Your task to perform on an android device: open wifi settings Image 0: 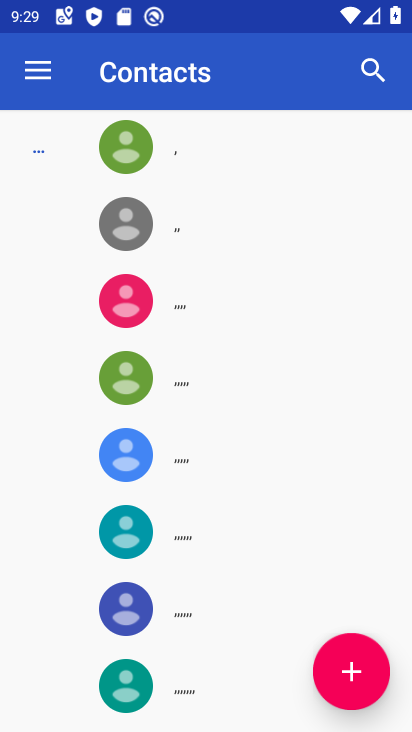
Step 0: press home button
Your task to perform on an android device: open wifi settings Image 1: 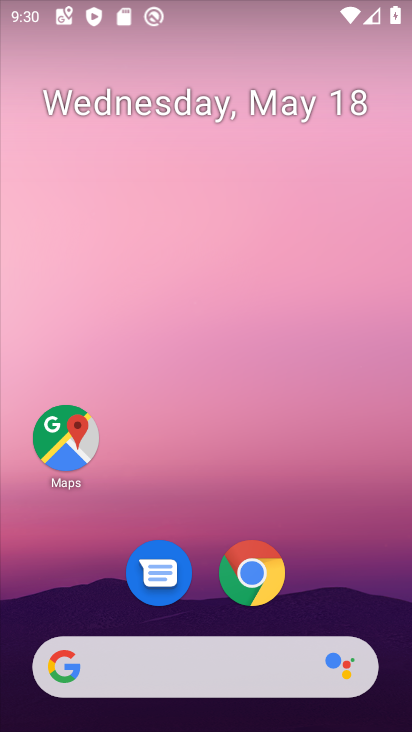
Step 1: drag from (203, 571) to (307, 25)
Your task to perform on an android device: open wifi settings Image 2: 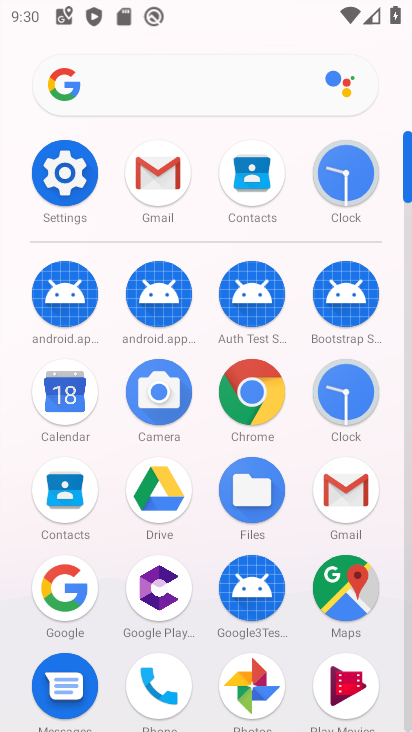
Step 2: click (70, 167)
Your task to perform on an android device: open wifi settings Image 3: 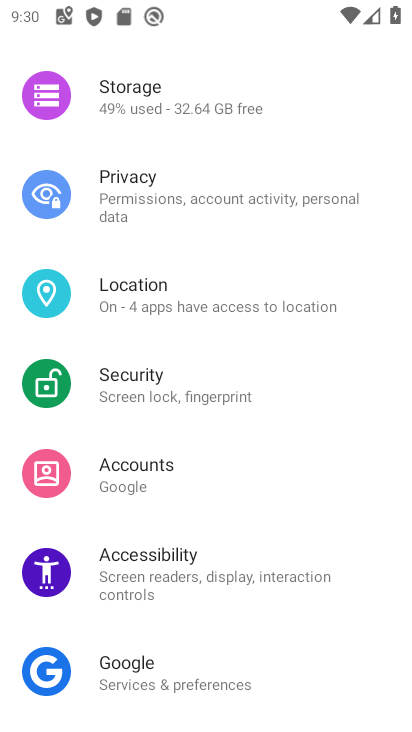
Step 3: drag from (350, 157) to (207, 502)
Your task to perform on an android device: open wifi settings Image 4: 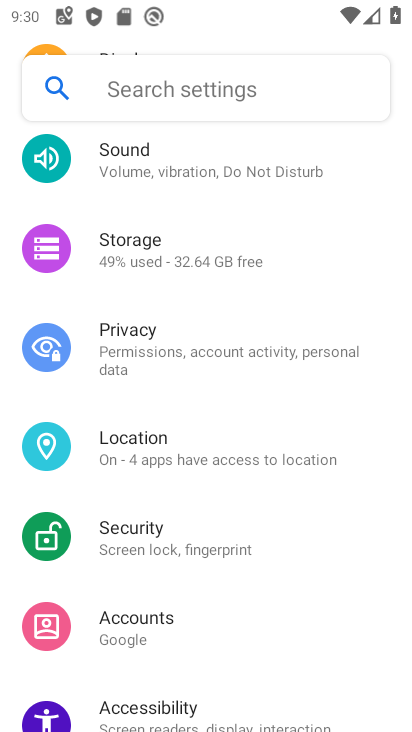
Step 4: drag from (325, 184) to (212, 639)
Your task to perform on an android device: open wifi settings Image 5: 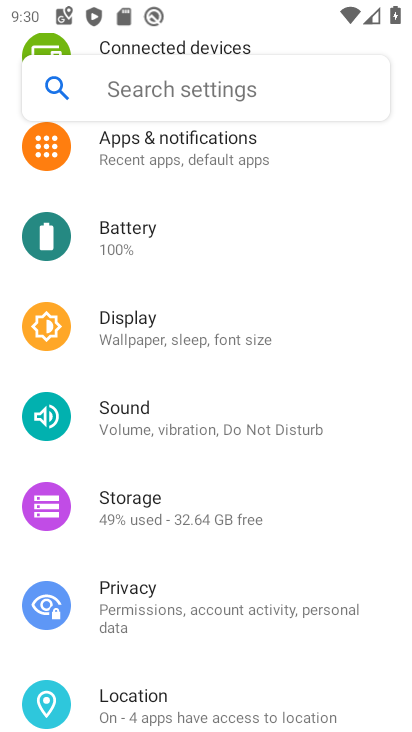
Step 5: drag from (306, 295) to (163, 731)
Your task to perform on an android device: open wifi settings Image 6: 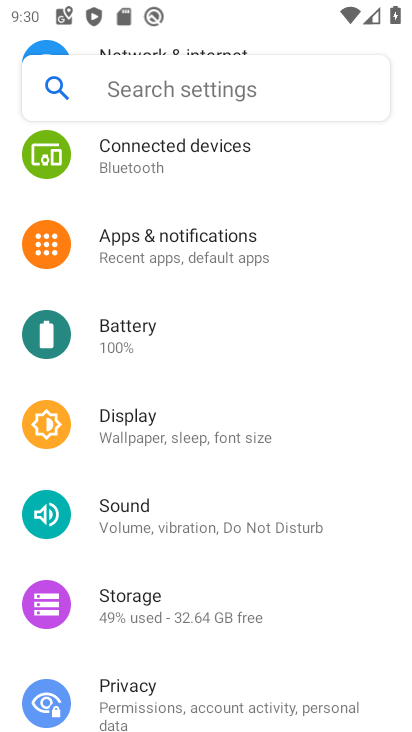
Step 6: drag from (316, 200) to (255, 627)
Your task to perform on an android device: open wifi settings Image 7: 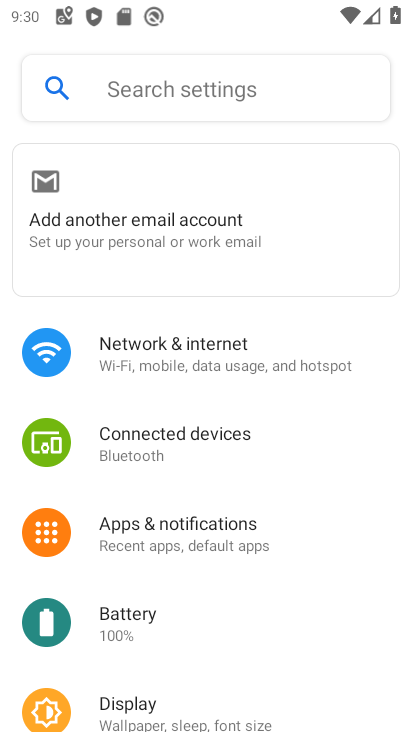
Step 7: click (292, 357)
Your task to perform on an android device: open wifi settings Image 8: 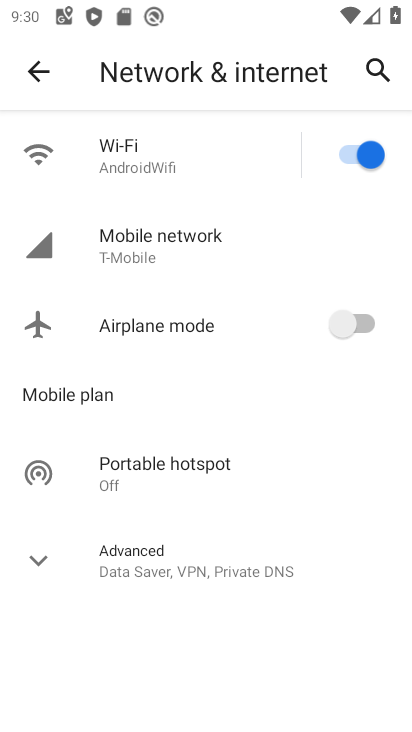
Step 8: click (177, 155)
Your task to perform on an android device: open wifi settings Image 9: 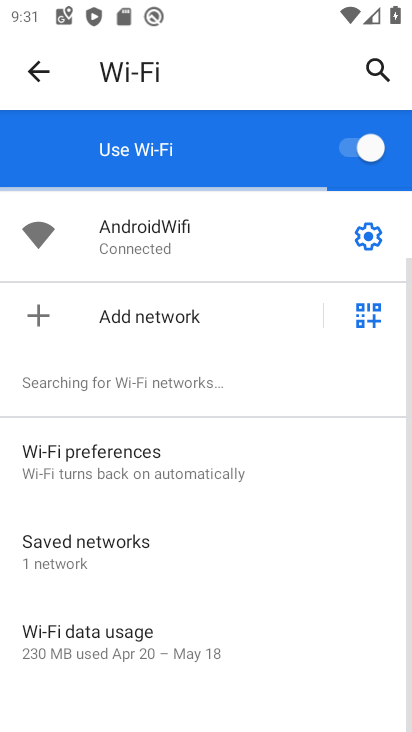
Step 9: click (367, 234)
Your task to perform on an android device: open wifi settings Image 10: 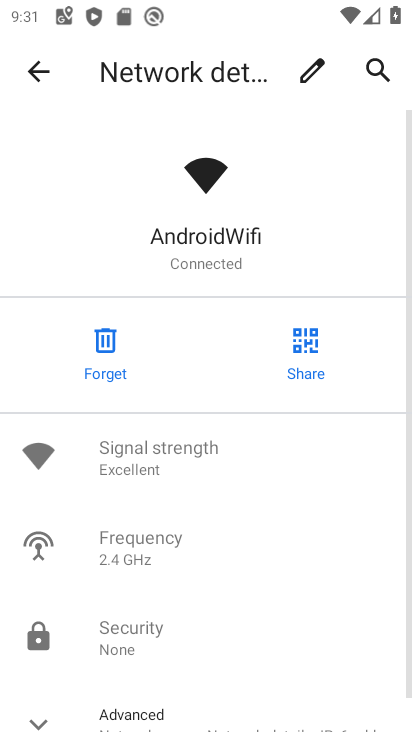
Step 10: task complete